Your task to perform on an android device: Open the calendar app, open the side menu, and click the "Day" option Image 0: 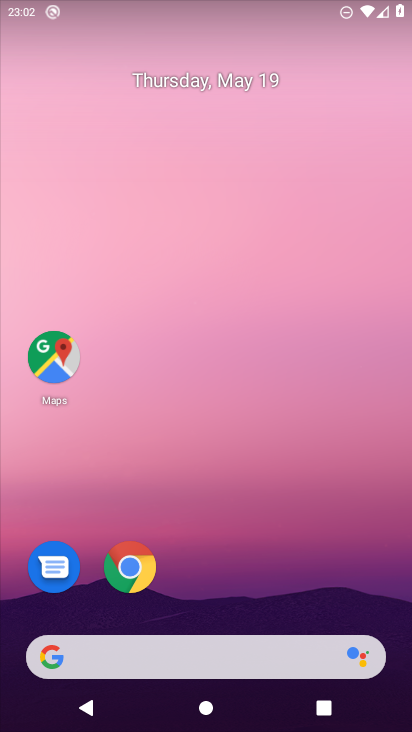
Step 0: drag from (203, 612) to (241, 67)
Your task to perform on an android device: Open the calendar app, open the side menu, and click the "Day" option Image 1: 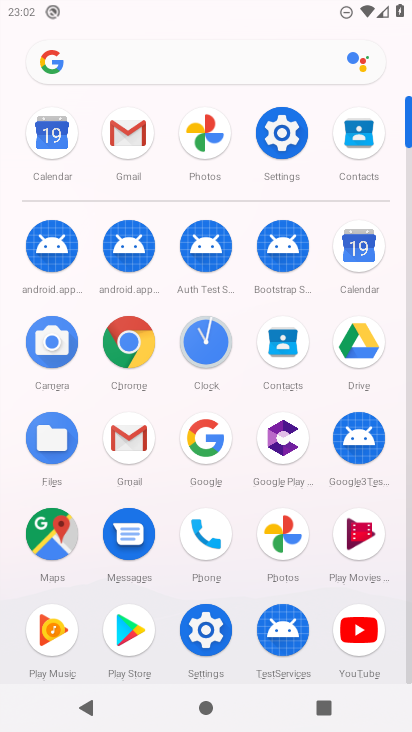
Step 1: click (358, 244)
Your task to perform on an android device: Open the calendar app, open the side menu, and click the "Day" option Image 2: 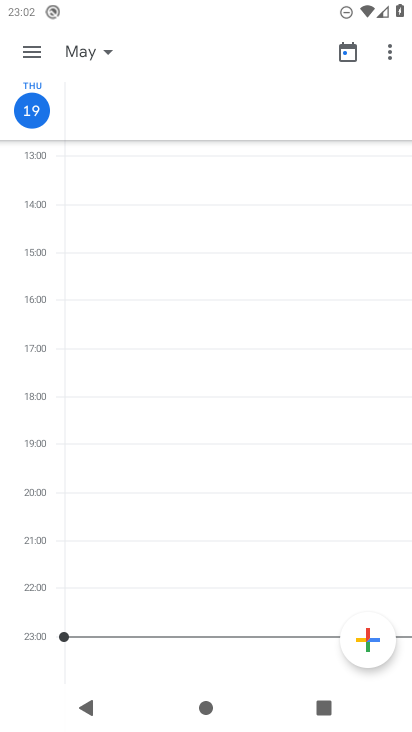
Step 2: click (29, 46)
Your task to perform on an android device: Open the calendar app, open the side menu, and click the "Day" option Image 3: 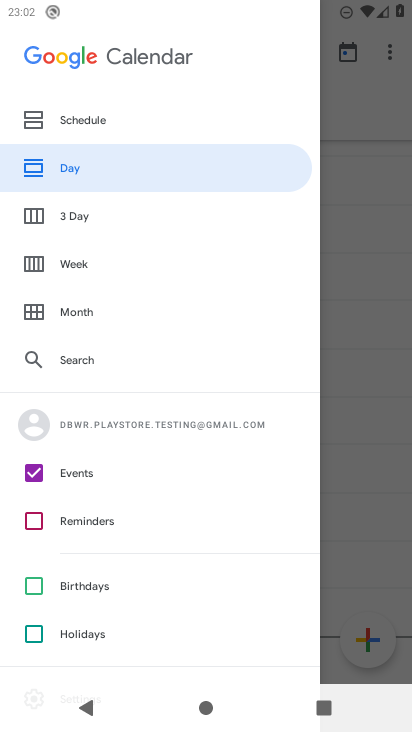
Step 3: click (63, 165)
Your task to perform on an android device: Open the calendar app, open the side menu, and click the "Day" option Image 4: 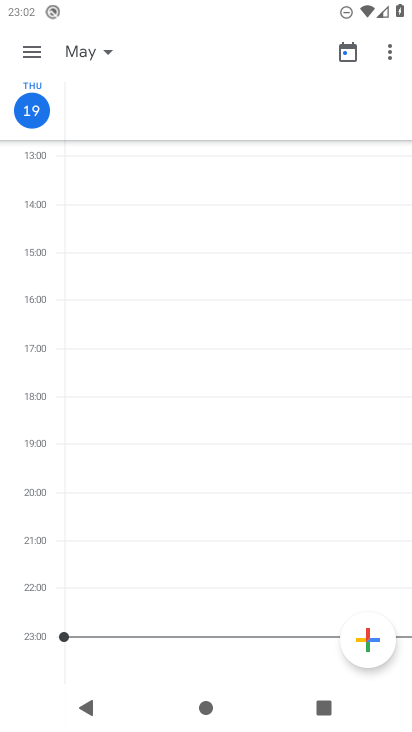
Step 4: task complete